Your task to perform on an android device: check android version Image 0: 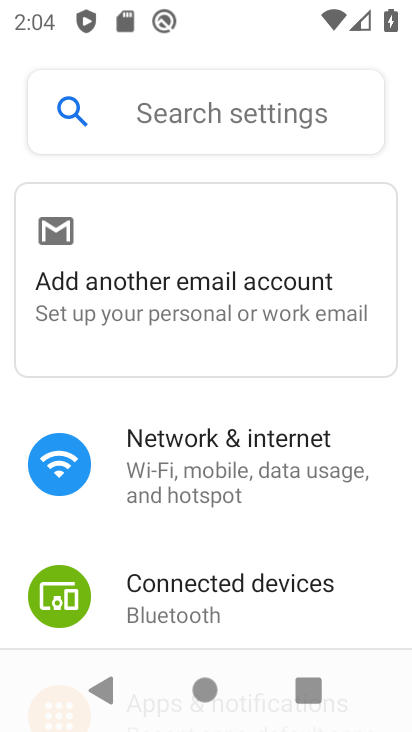
Step 0: drag from (247, 616) to (235, 188)
Your task to perform on an android device: check android version Image 1: 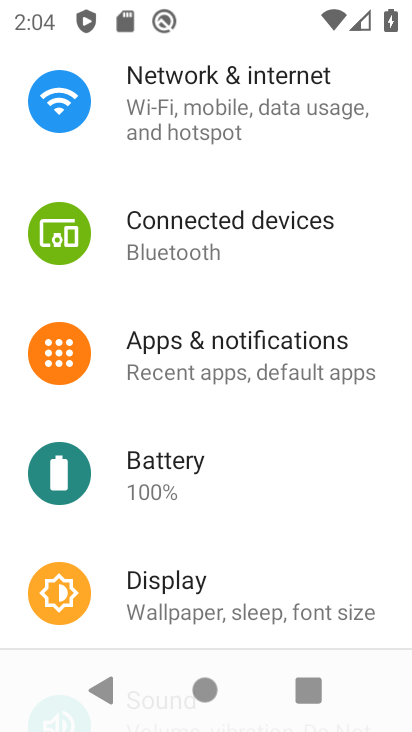
Step 1: drag from (202, 627) to (177, 163)
Your task to perform on an android device: check android version Image 2: 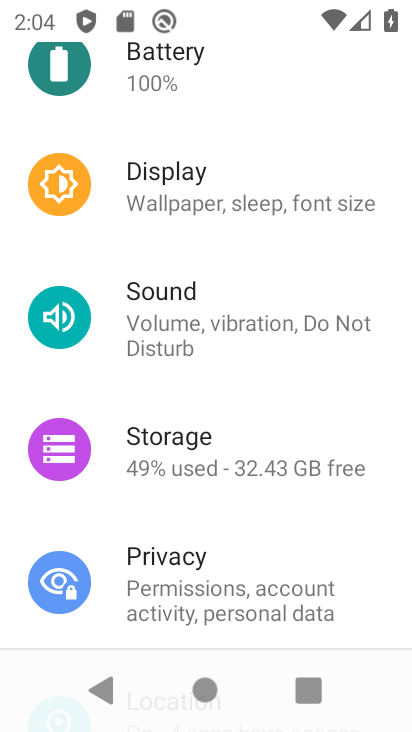
Step 2: drag from (218, 631) to (199, 183)
Your task to perform on an android device: check android version Image 3: 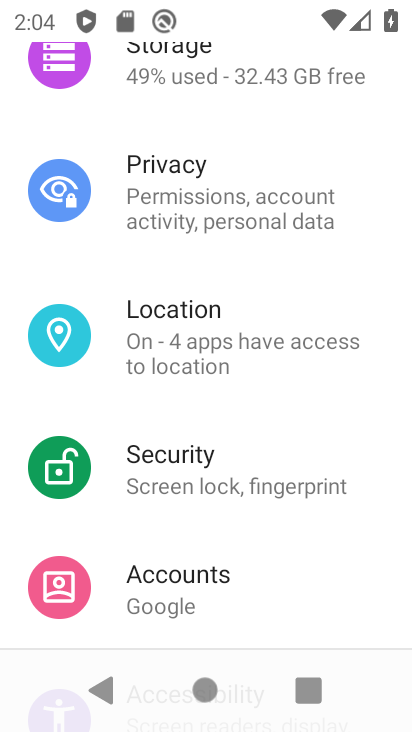
Step 3: drag from (240, 629) to (243, 174)
Your task to perform on an android device: check android version Image 4: 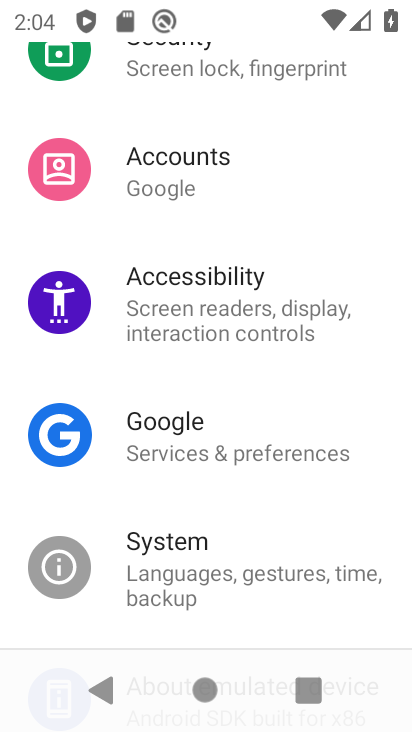
Step 4: drag from (256, 622) to (228, 200)
Your task to perform on an android device: check android version Image 5: 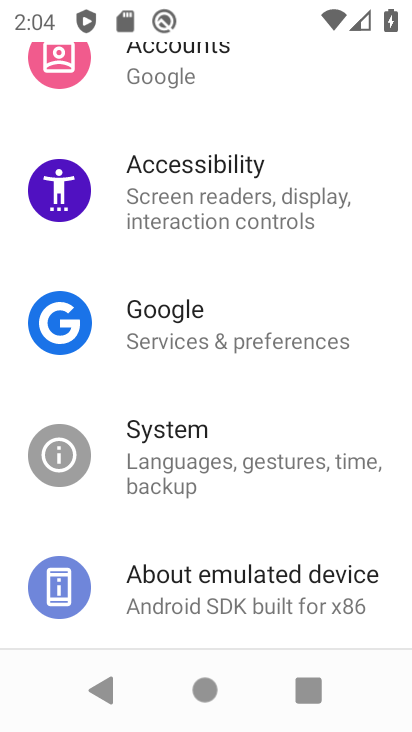
Step 5: click (216, 579)
Your task to perform on an android device: check android version Image 6: 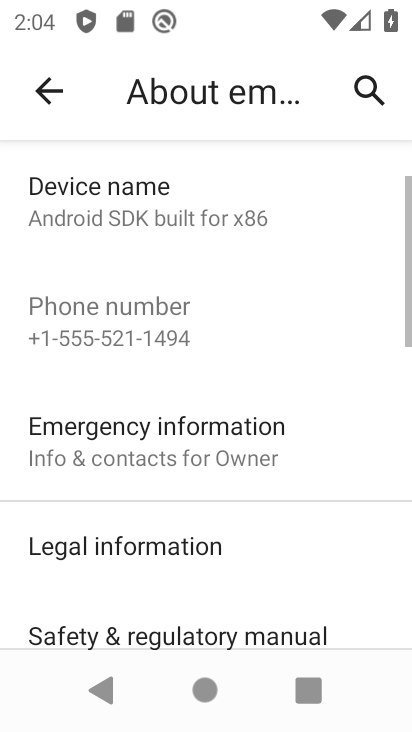
Step 6: drag from (227, 608) to (257, 235)
Your task to perform on an android device: check android version Image 7: 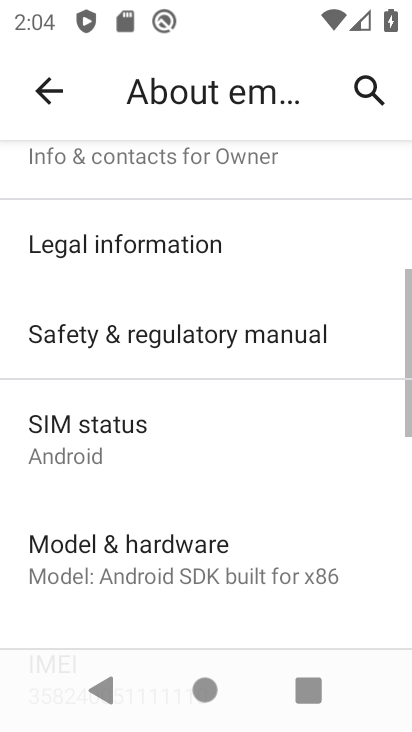
Step 7: drag from (196, 619) to (227, 290)
Your task to perform on an android device: check android version Image 8: 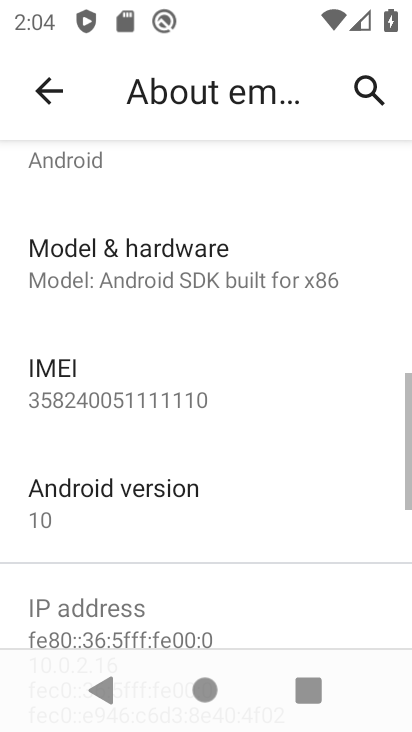
Step 8: click (138, 480)
Your task to perform on an android device: check android version Image 9: 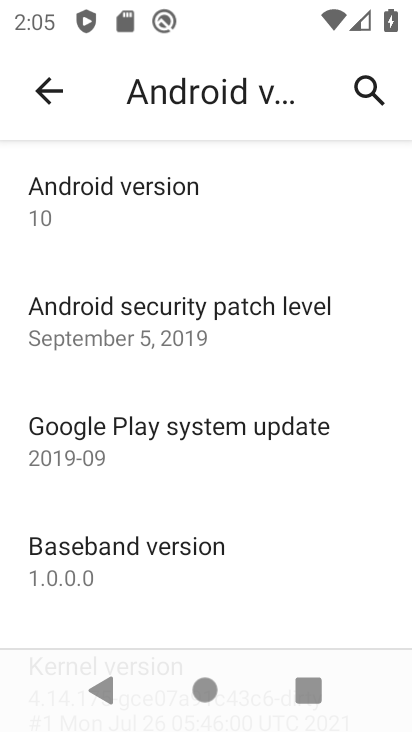
Step 9: task complete